Your task to perform on an android device: add a label to a message in the gmail app Image 0: 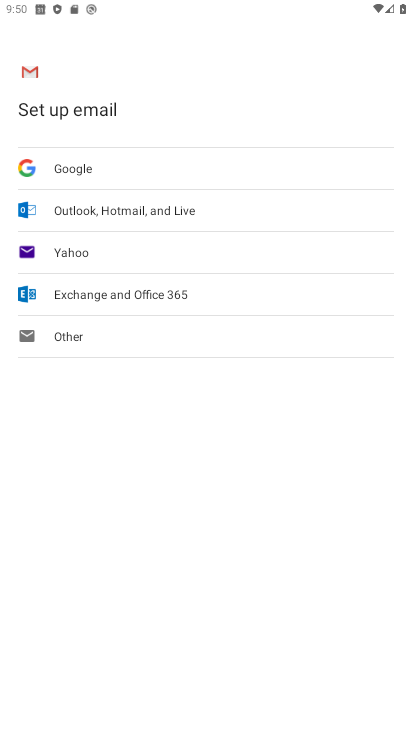
Step 0: press home button
Your task to perform on an android device: add a label to a message in the gmail app Image 1: 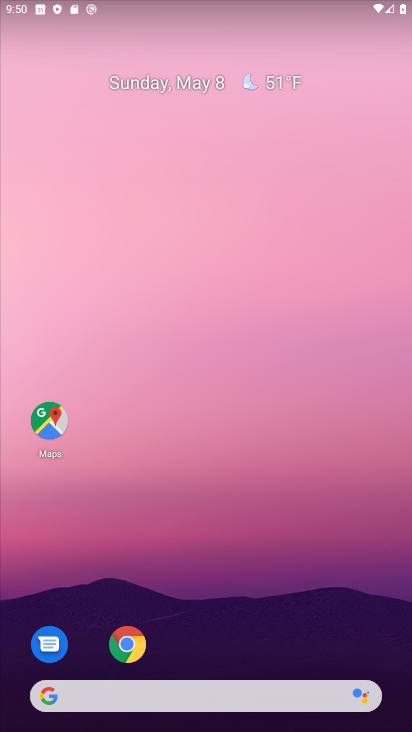
Step 1: drag from (184, 609) to (248, 64)
Your task to perform on an android device: add a label to a message in the gmail app Image 2: 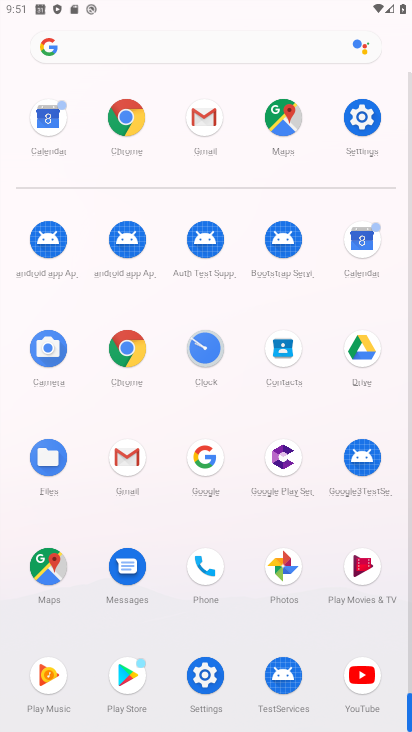
Step 2: click (122, 468)
Your task to perform on an android device: add a label to a message in the gmail app Image 3: 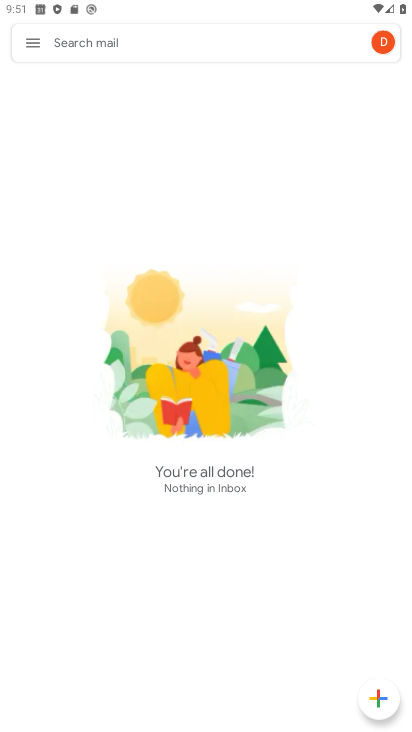
Step 3: click (21, 53)
Your task to perform on an android device: add a label to a message in the gmail app Image 4: 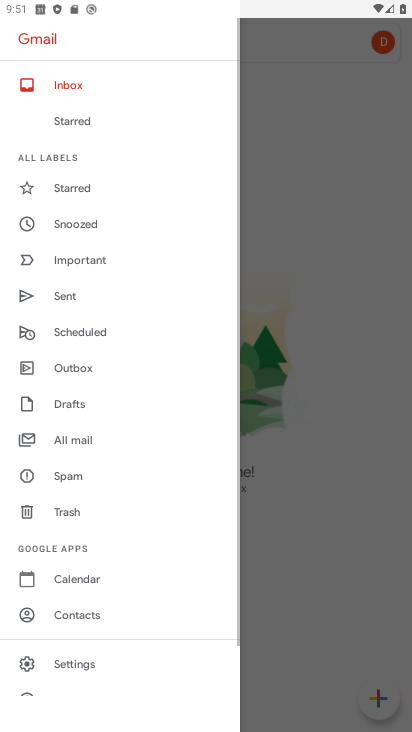
Step 4: drag from (122, 628) to (189, 116)
Your task to perform on an android device: add a label to a message in the gmail app Image 5: 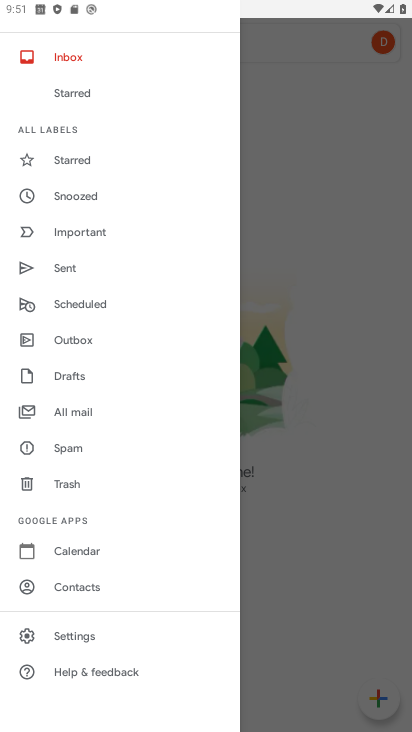
Step 5: click (96, 630)
Your task to perform on an android device: add a label to a message in the gmail app Image 6: 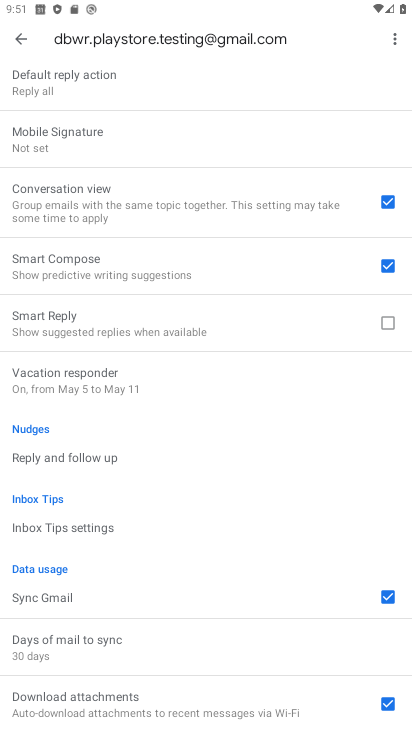
Step 6: click (23, 47)
Your task to perform on an android device: add a label to a message in the gmail app Image 7: 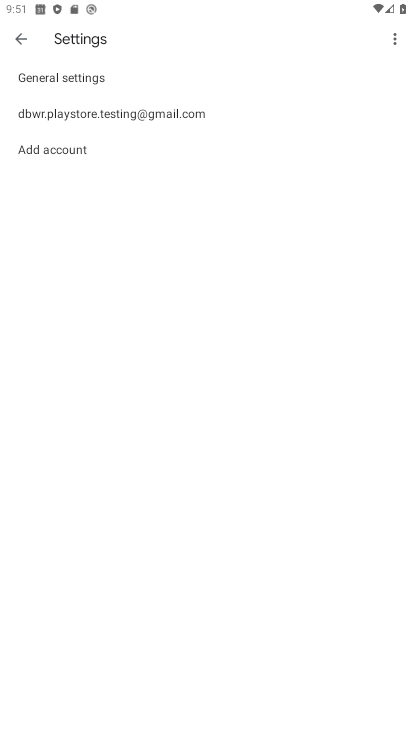
Step 7: click (24, 39)
Your task to perform on an android device: add a label to a message in the gmail app Image 8: 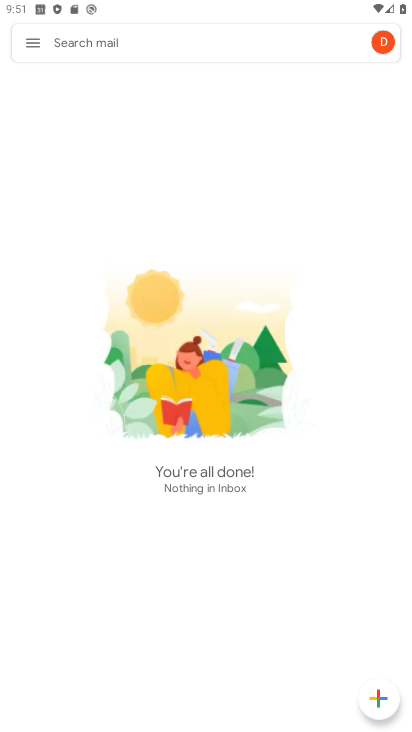
Step 8: click (23, 42)
Your task to perform on an android device: add a label to a message in the gmail app Image 9: 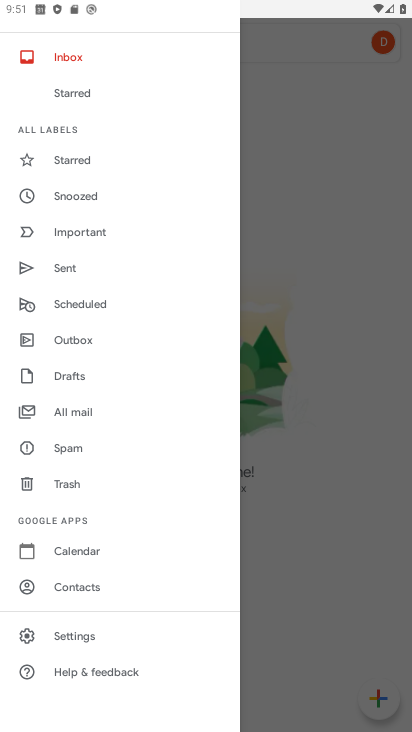
Step 9: task complete